Your task to perform on an android device: Open the web browser Image 0: 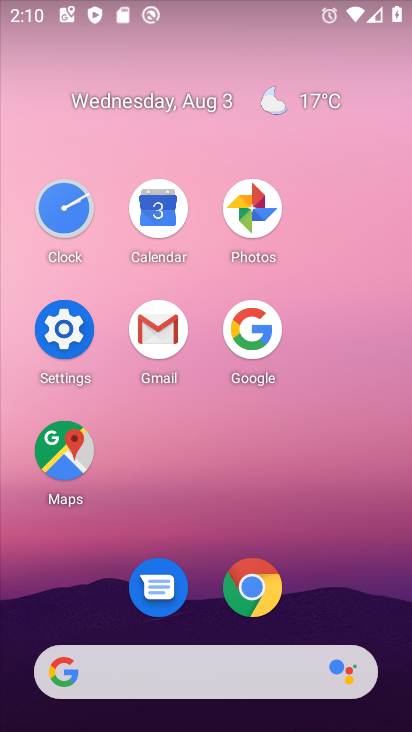
Step 0: click (235, 583)
Your task to perform on an android device: Open the web browser Image 1: 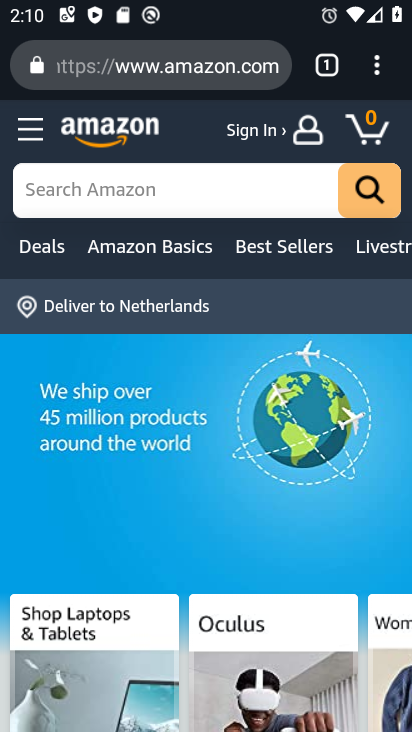
Step 1: task complete